Your task to perform on an android device: Go to location settings Image 0: 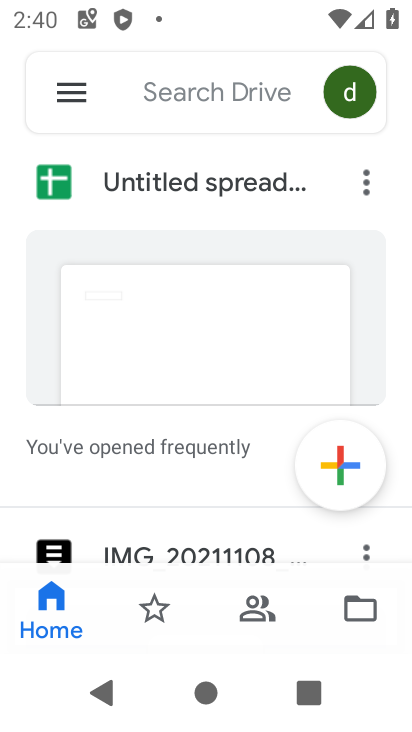
Step 0: press home button
Your task to perform on an android device: Go to location settings Image 1: 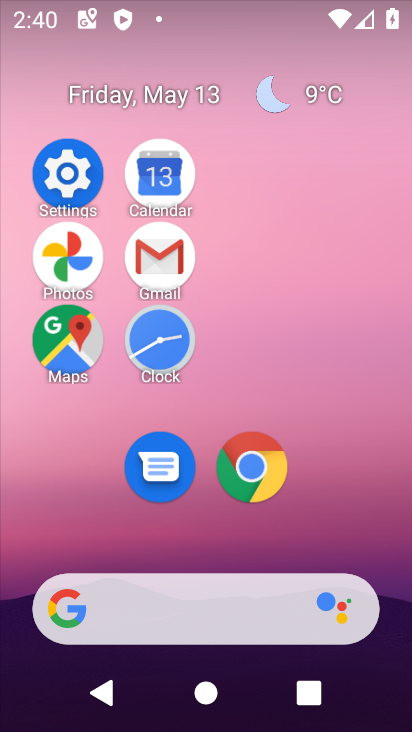
Step 1: click (59, 196)
Your task to perform on an android device: Go to location settings Image 2: 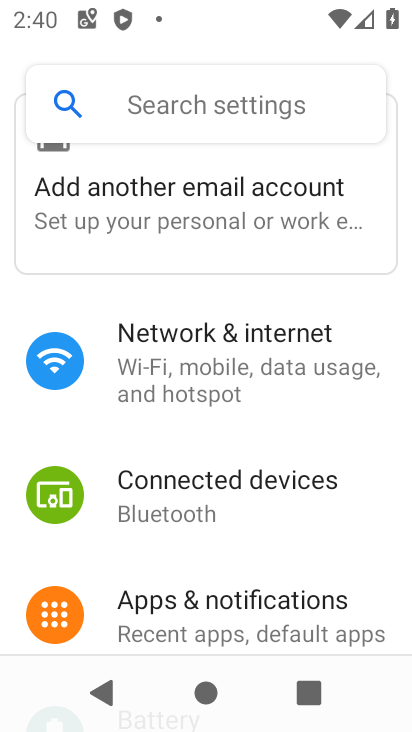
Step 2: drag from (288, 525) to (260, 162)
Your task to perform on an android device: Go to location settings Image 3: 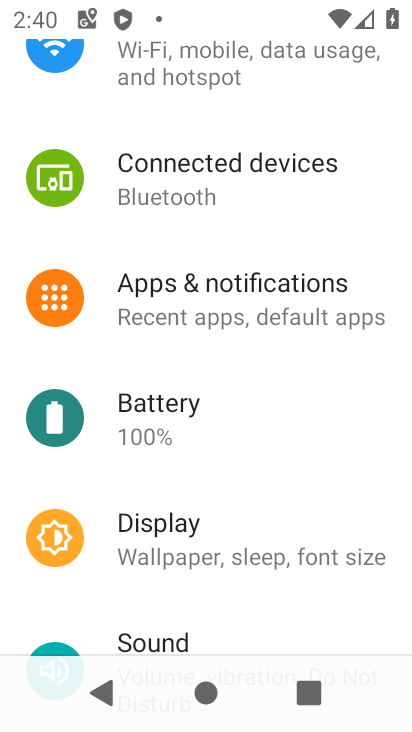
Step 3: drag from (243, 580) to (263, 232)
Your task to perform on an android device: Go to location settings Image 4: 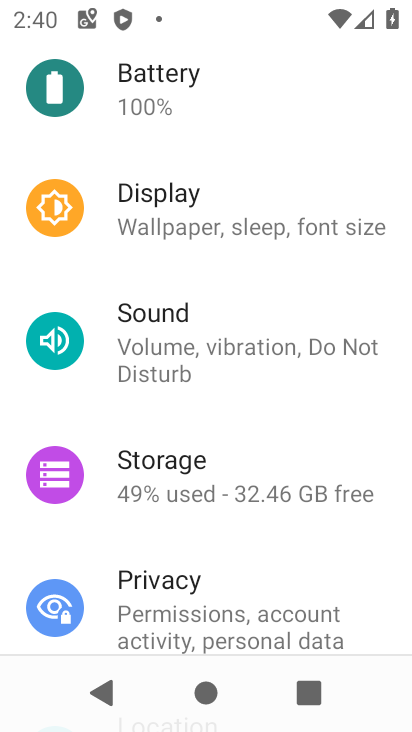
Step 4: drag from (292, 579) to (297, 92)
Your task to perform on an android device: Go to location settings Image 5: 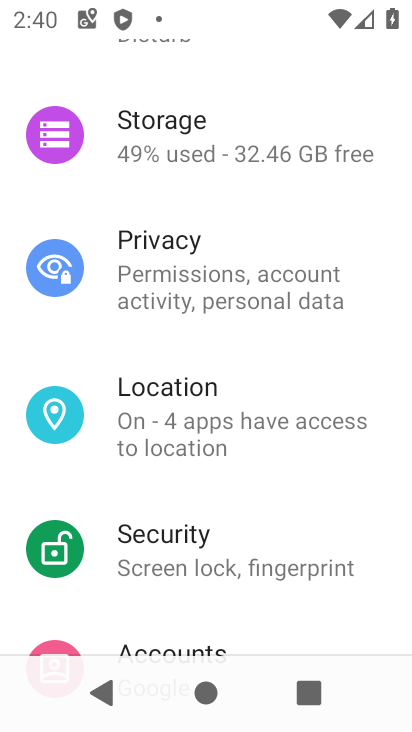
Step 5: click (262, 406)
Your task to perform on an android device: Go to location settings Image 6: 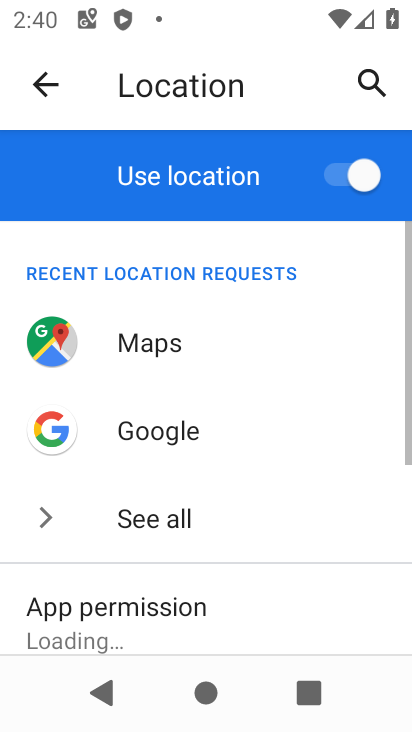
Step 6: task complete